Your task to perform on an android device: Search for the best rated lawnmower on Lowes.com Image 0: 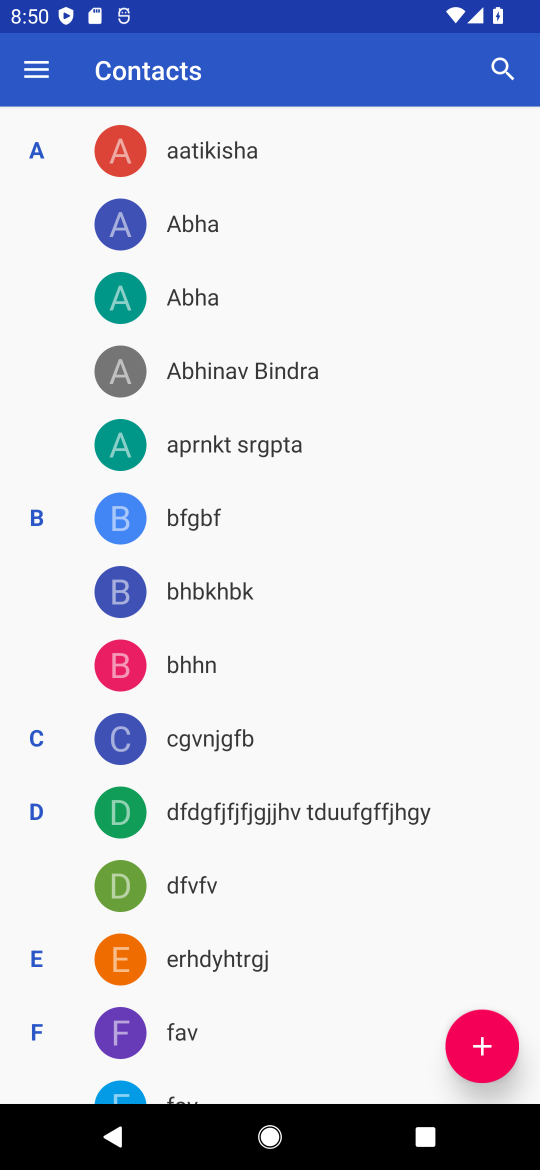
Step 0: press home button
Your task to perform on an android device: Search for the best rated lawnmower on Lowes.com Image 1: 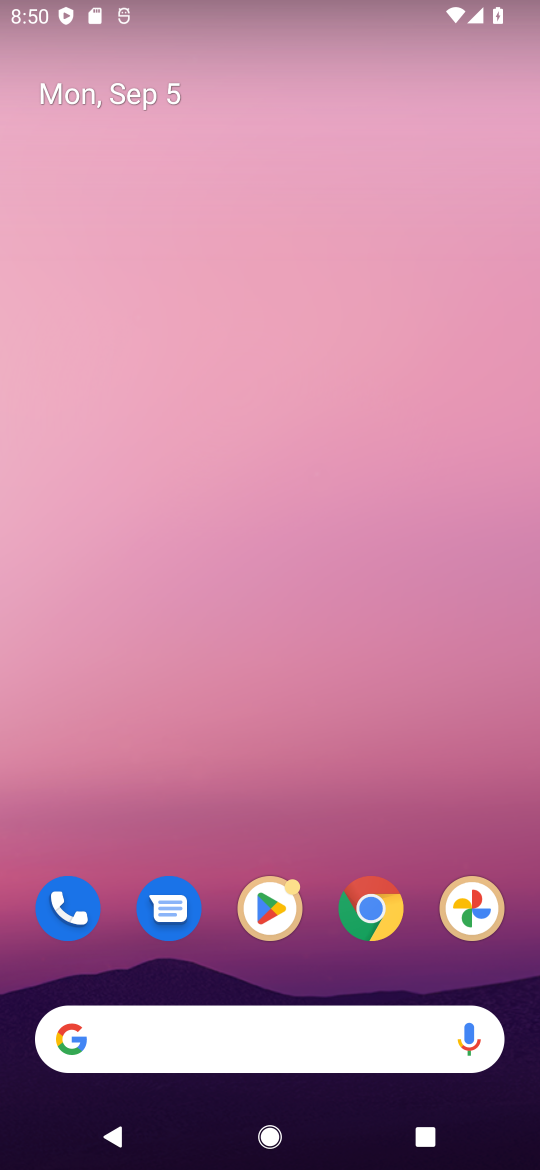
Step 1: click (361, 933)
Your task to perform on an android device: Search for the best rated lawnmower on Lowes.com Image 2: 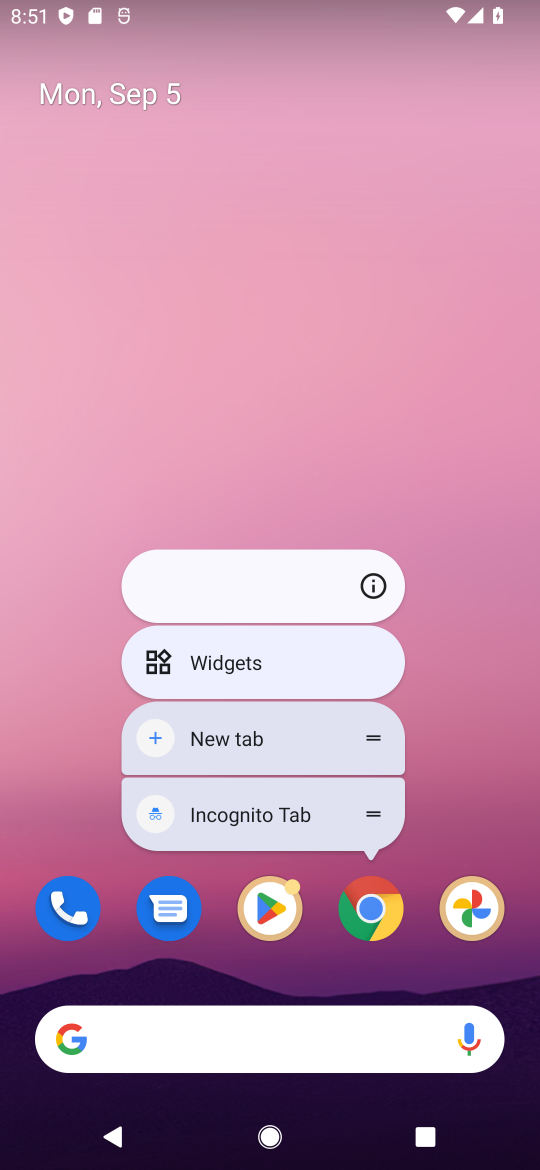
Step 2: click (300, 968)
Your task to perform on an android device: Search for the best rated lawnmower on Lowes.com Image 3: 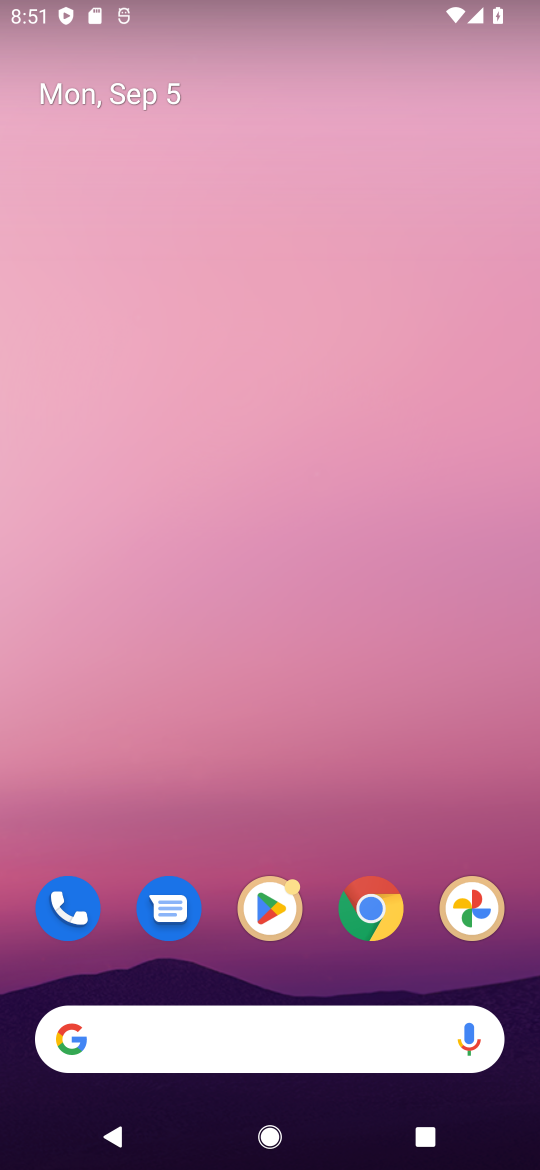
Step 3: drag from (262, 968) to (190, 5)
Your task to perform on an android device: Search for the best rated lawnmower on Lowes.com Image 4: 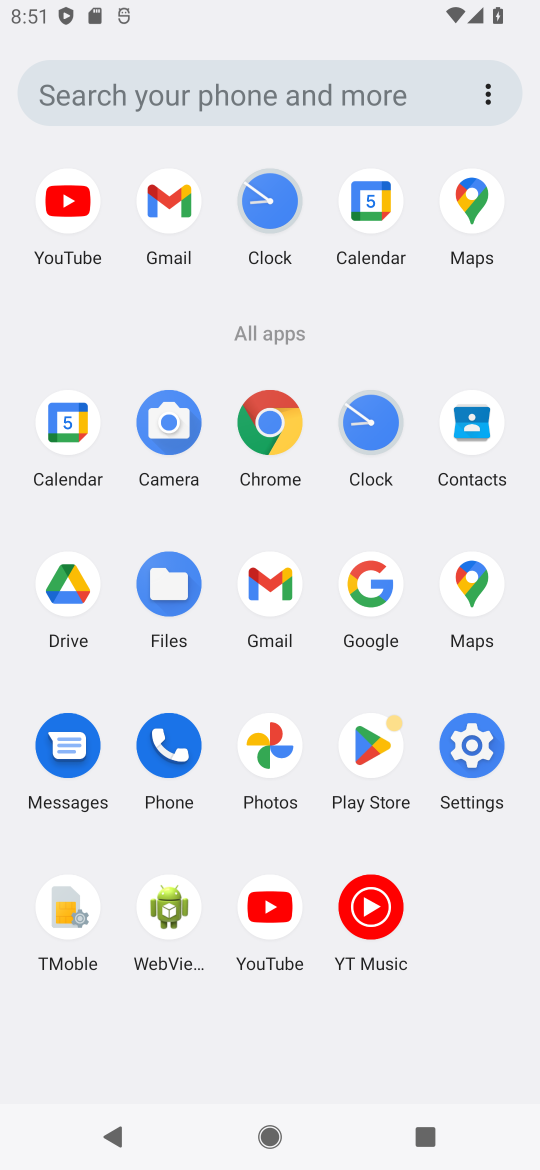
Step 4: click (248, 414)
Your task to perform on an android device: Search for the best rated lawnmower on Lowes.com Image 5: 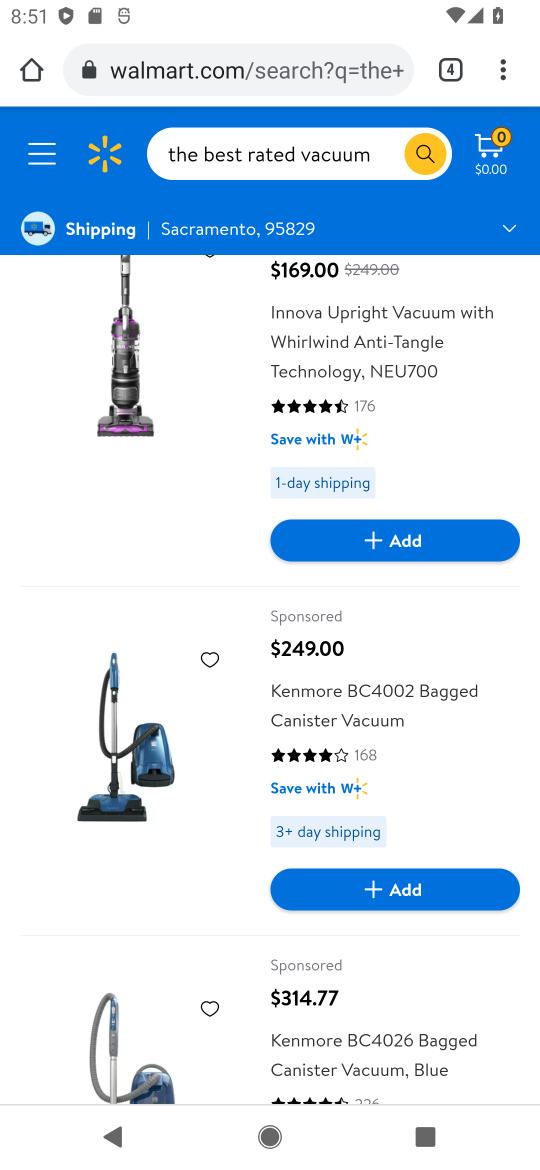
Step 5: click (323, 82)
Your task to perform on an android device: Search for the best rated lawnmower on Lowes.com Image 6: 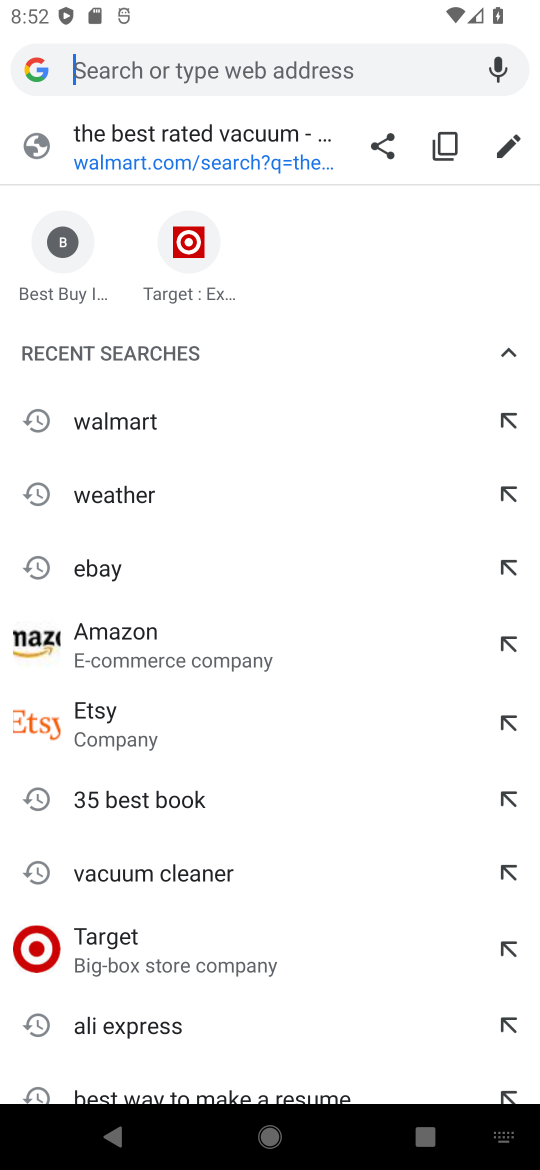
Step 6: type "Lowes.com"
Your task to perform on an android device: Search for the best rated lawnmower on Lowes.com Image 7: 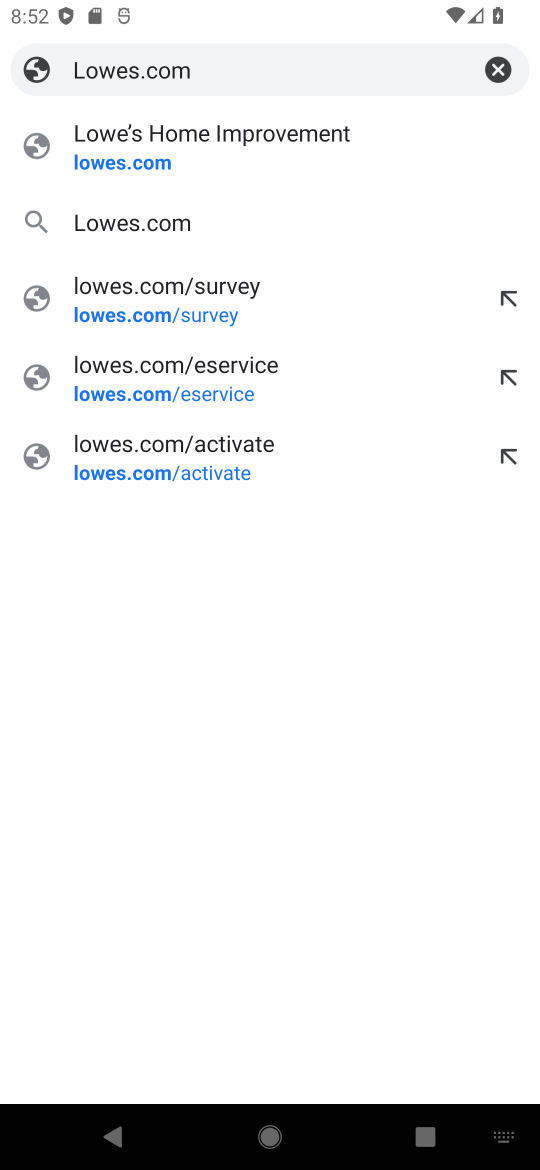
Step 7: click (177, 129)
Your task to perform on an android device: Search for the best rated lawnmower on Lowes.com Image 8: 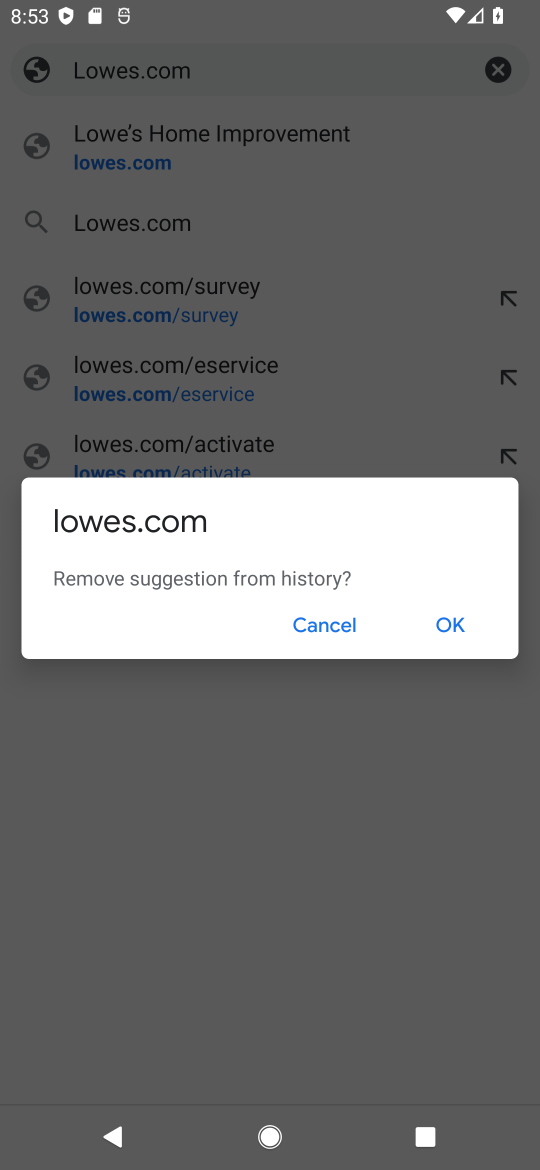
Step 8: click (328, 635)
Your task to perform on an android device: Search for the best rated lawnmower on Lowes.com Image 9: 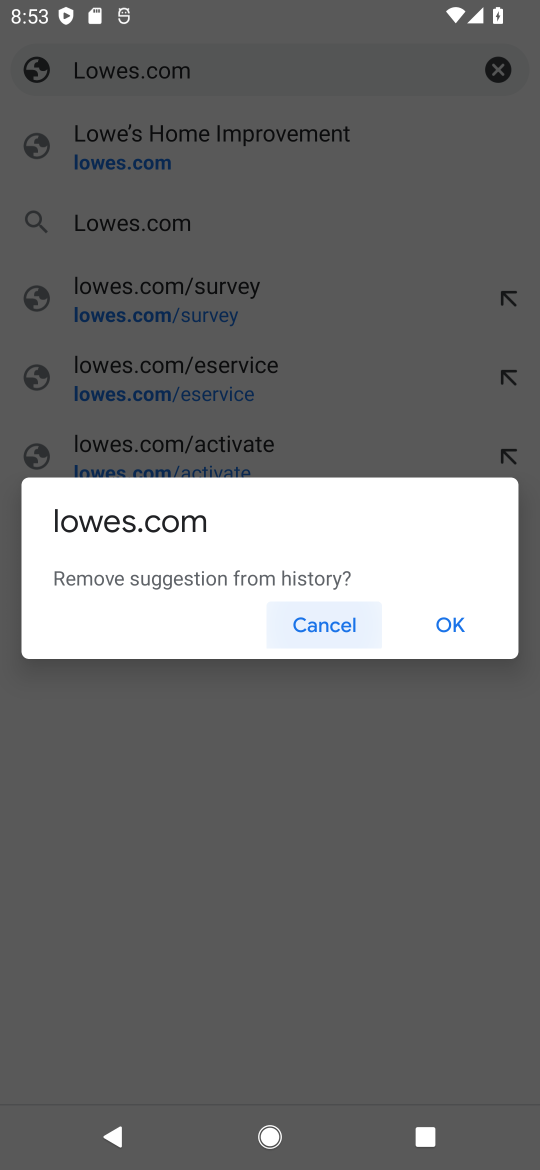
Step 9: click (253, 160)
Your task to perform on an android device: Search for the best rated lawnmower on Lowes.com Image 10: 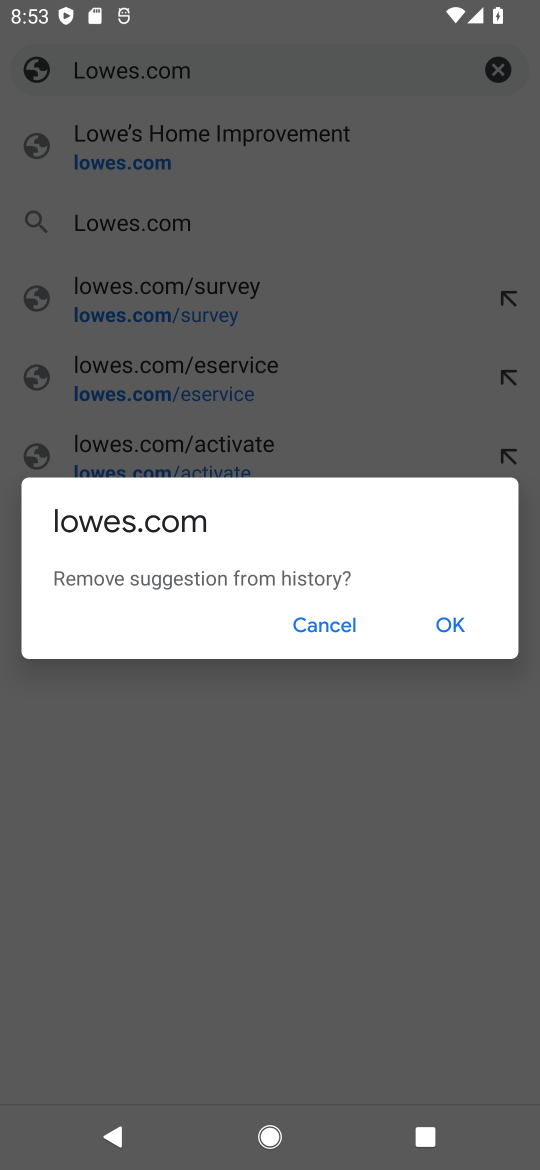
Step 10: click (324, 615)
Your task to perform on an android device: Search for the best rated lawnmower on Lowes.com Image 11: 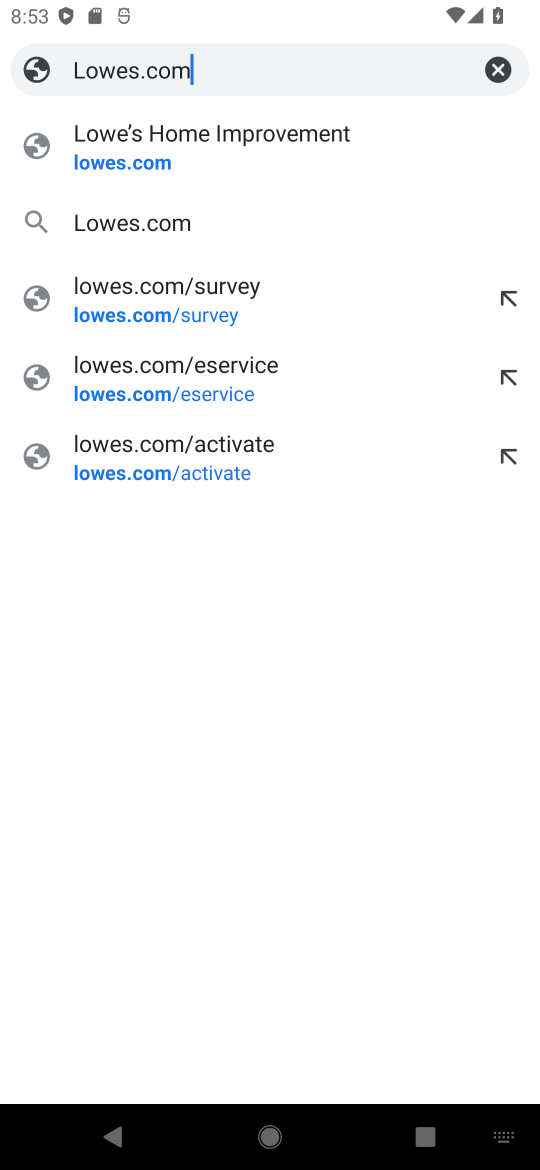
Step 11: click (166, 141)
Your task to perform on an android device: Search for the best rated lawnmower on Lowes.com Image 12: 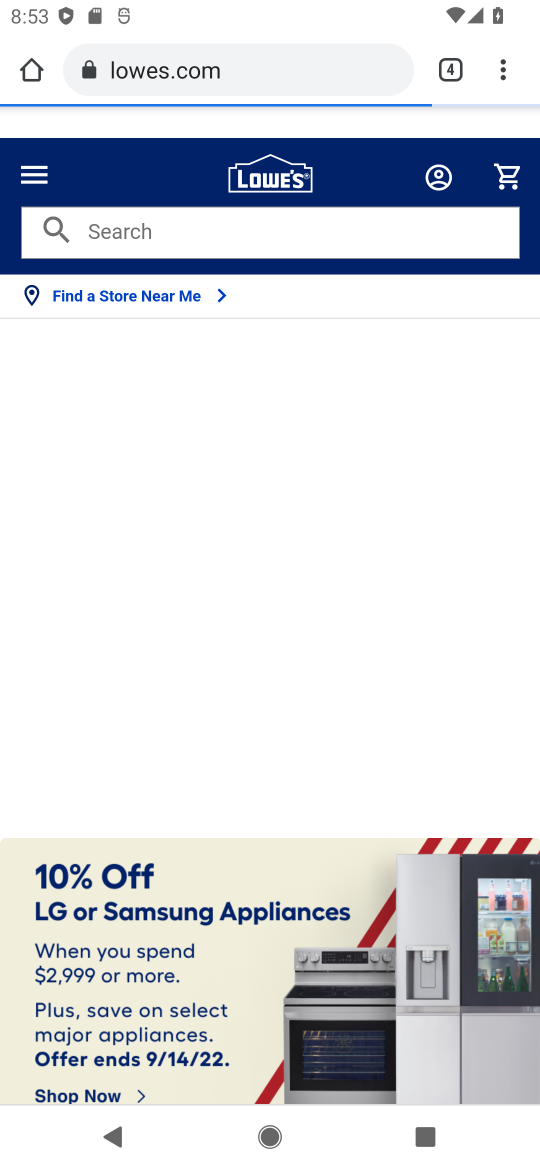
Step 12: task complete